Your task to perform on an android device: Do I have any events today? Image 0: 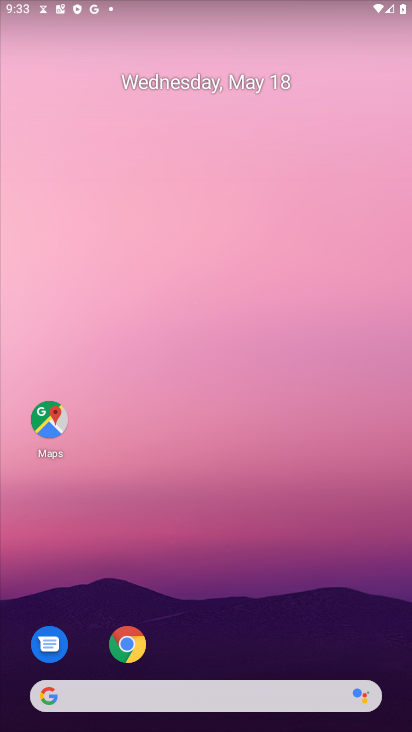
Step 0: drag from (243, 633) to (231, 25)
Your task to perform on an android device: Do I have any events today? Image 1: 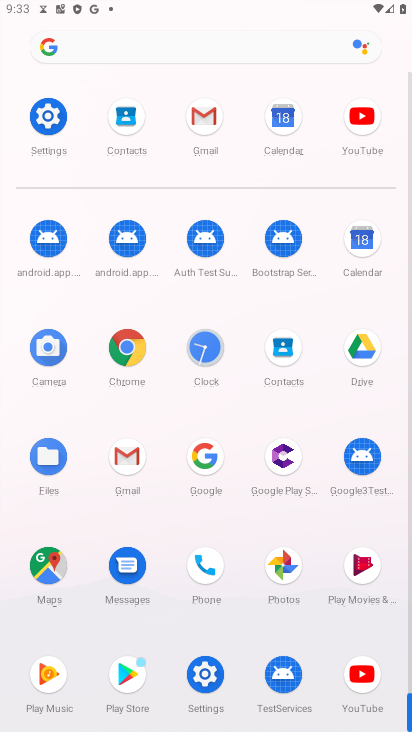
Step 1: click (366, 240)
Your task to perform on an android device: Do I have any events today? Image 2: 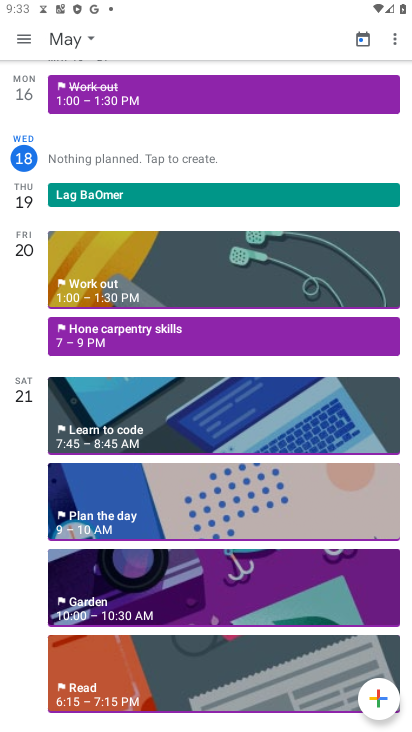
Step 2: click (93, 38)
Your task to perform on an android device: Do I have any events today? Image 3: 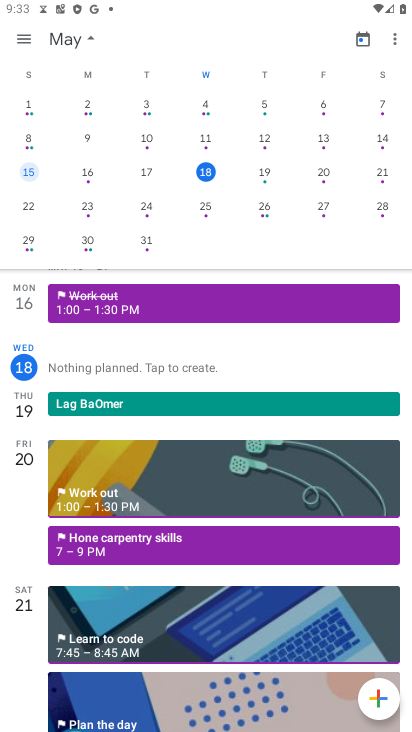
Step 3: click (357, 45)
Your task to perform on an android device: Do I have any events today? Image 4: 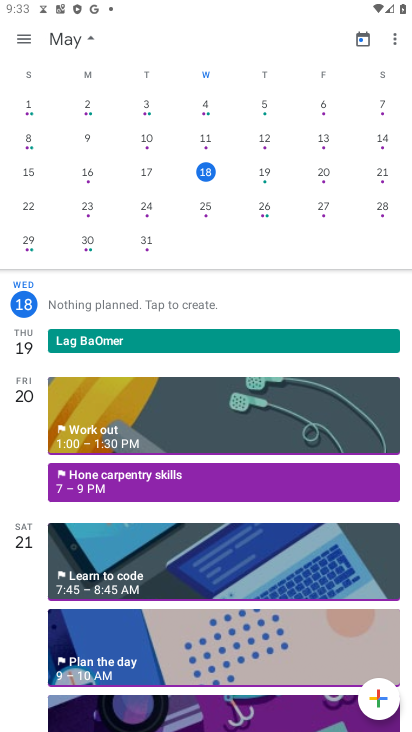
Step 4: click (202, 173)
Your task to perform on an android device: Do I have any events today? Image 5: 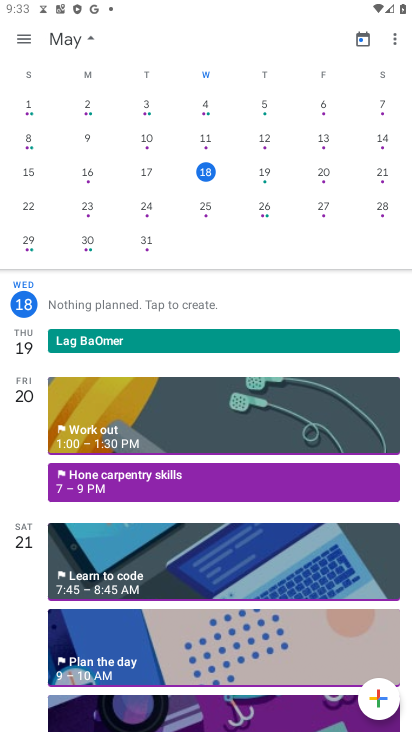
Step 5: click (29, 40)
Your task to perform on an android device: Do I have any events today? Image 6: 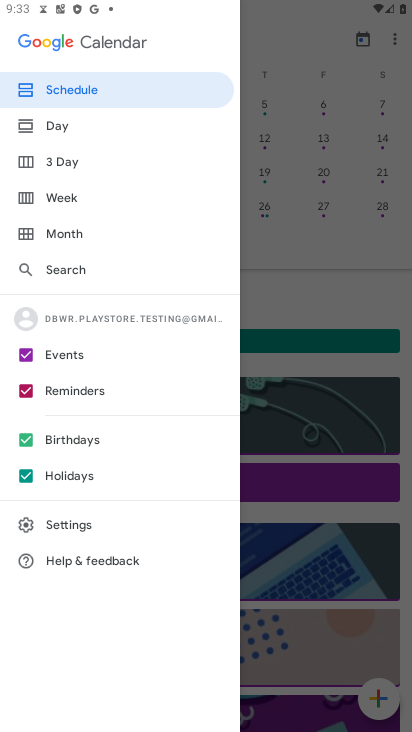
Step 6: click (56, 100)
Your task to perform on an android device: Do I have any events today? Image 7: 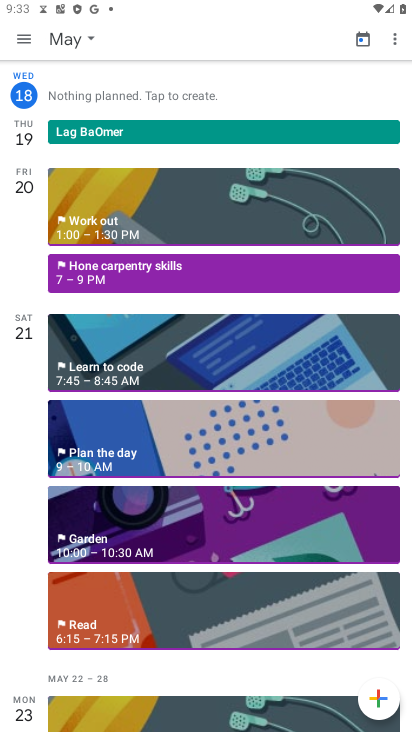
Step 7: task complete